Your task to perform on an android device: add a label to a message in the gmail app Image 0: 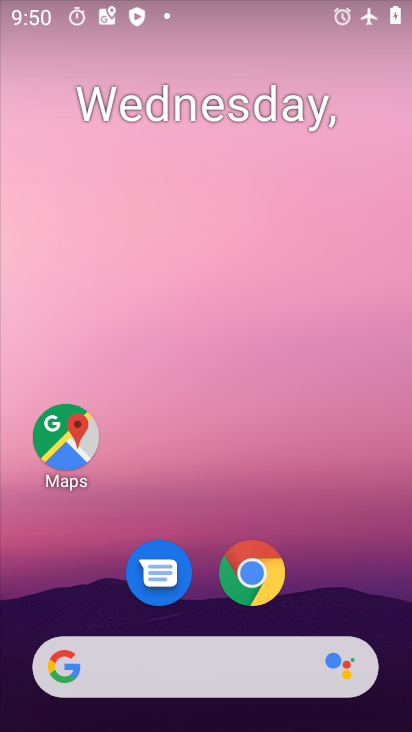
Step 0: drag from (317, 638) to (301, 377)
Your task to perform on an android device: add a label to a message in the gmail app Image 1: 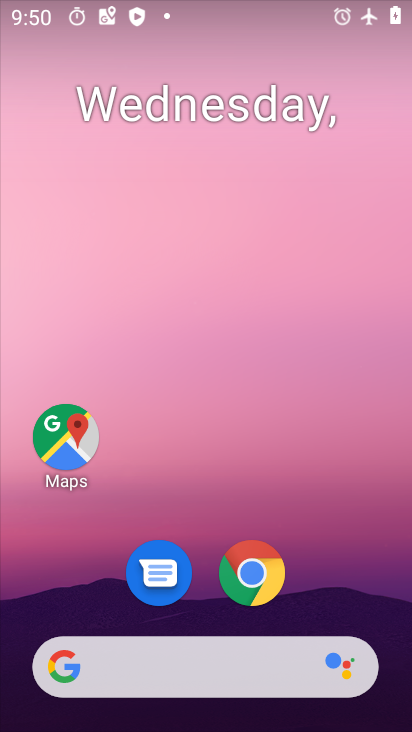
Step 1: drag from (295, 688) to (299, 259)
Your task to perform on an android device: add a label to a message in the gmail app Image 2: 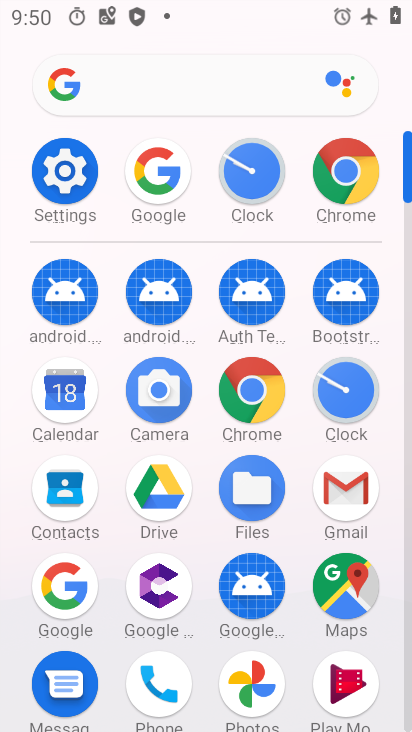
Step 2: click (356, 504)
Your task to perform on an android device: add a label to a message in the gmail app Image 3: 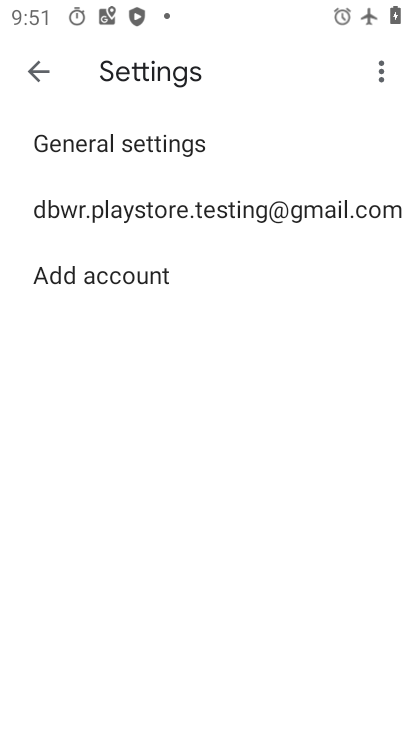
Step 3: click (39, 70)
Your task to perform on an android device: add a label to a message in the gmail app Image 4: 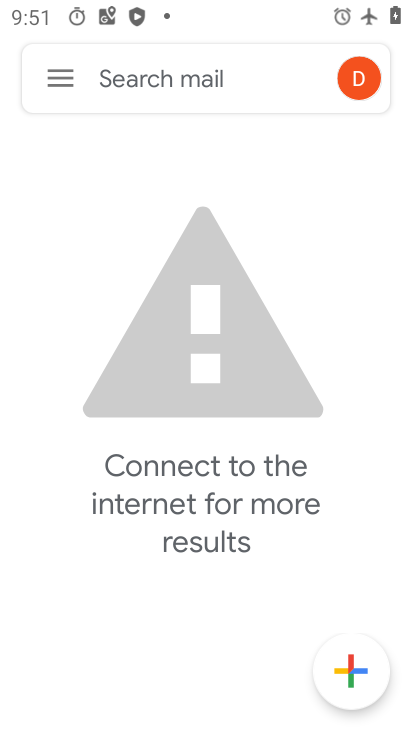
Step 4: click (48, 76)
Your task to perform on an android device: add a label to a message in the gmail app Image 5: 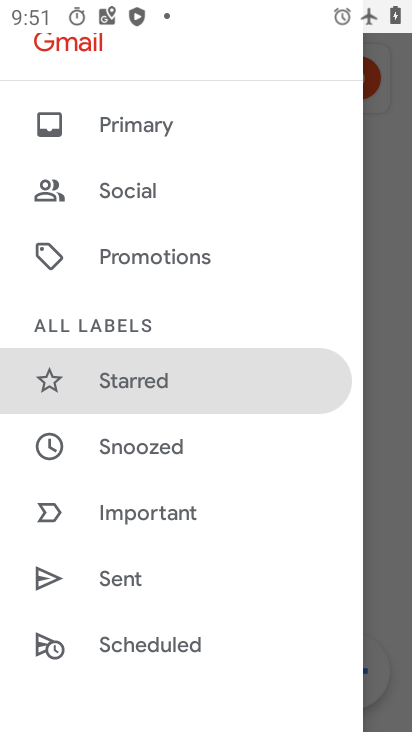
Step 5: drag from (152, 425) to (162, 262)
Your task to perform on an android device: add a label to a message in the gmail app Image 6: 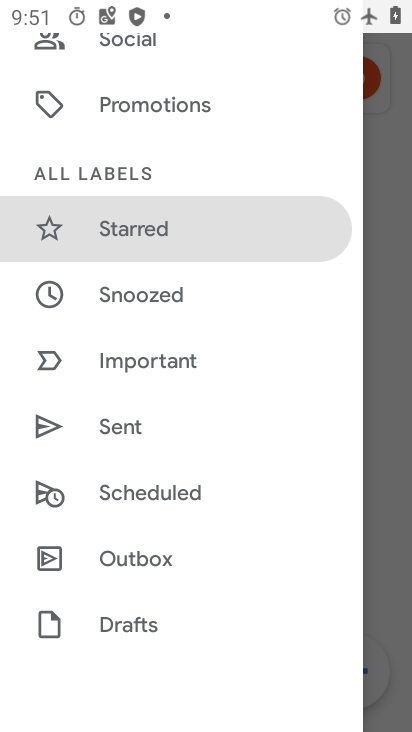
Step 6: drag from (139, 611) to (146, 468)
Your task to perform on an android device: add a label to a message in the gmail app Image 7: 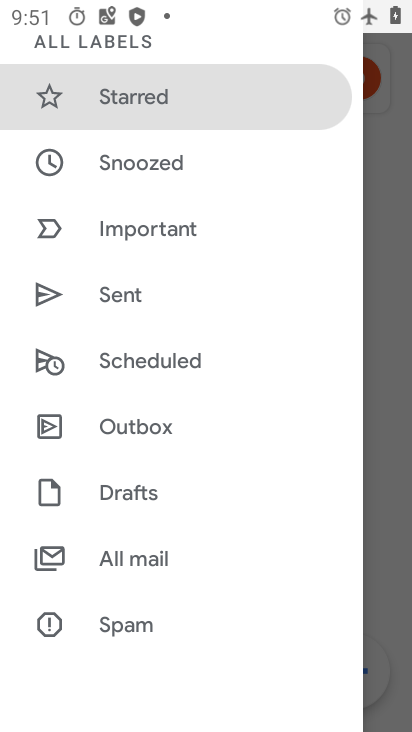
Step 7: click (160, 565)
Your task to perform on an android device: add a label to a message in the gmail app Image 8: 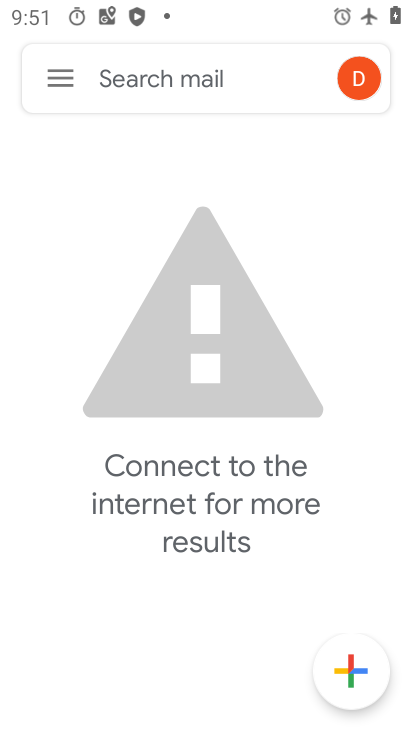
Step 8: task complete